Your task to perform on an android device: Open the stopwatch Image 0: 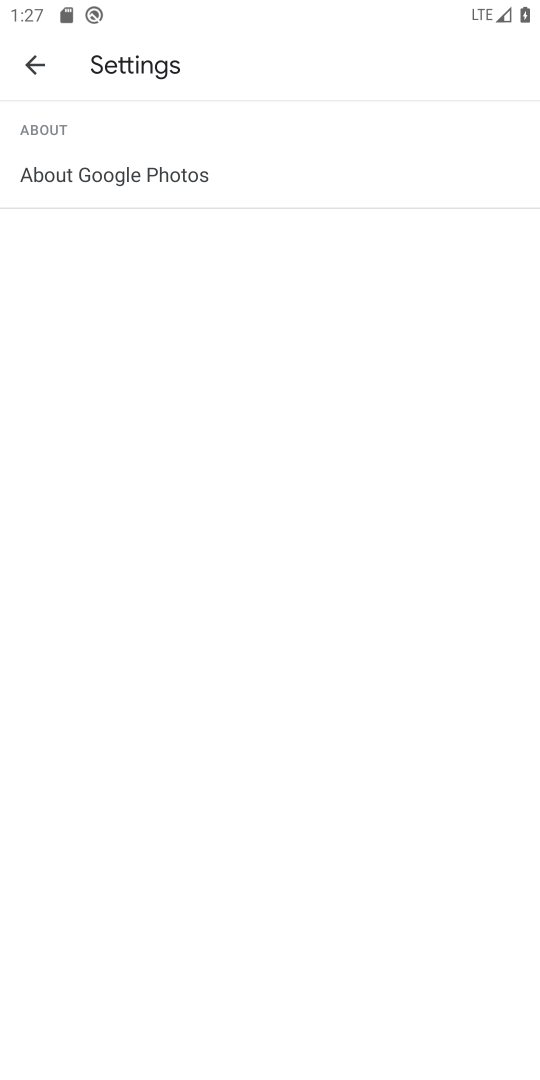
Step 0: press home button
Your task to perform on an android device: Open the stopwatch Image 1: 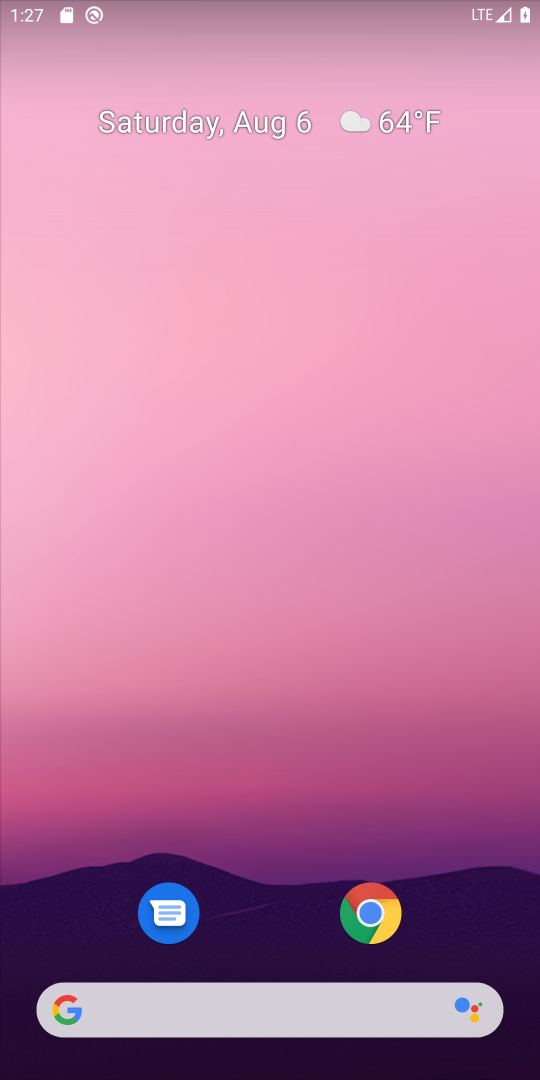
Step 1: drag from (458, 895) to (483, 366)
Your task to perform on an android device: Open the stopwatch Image 2: 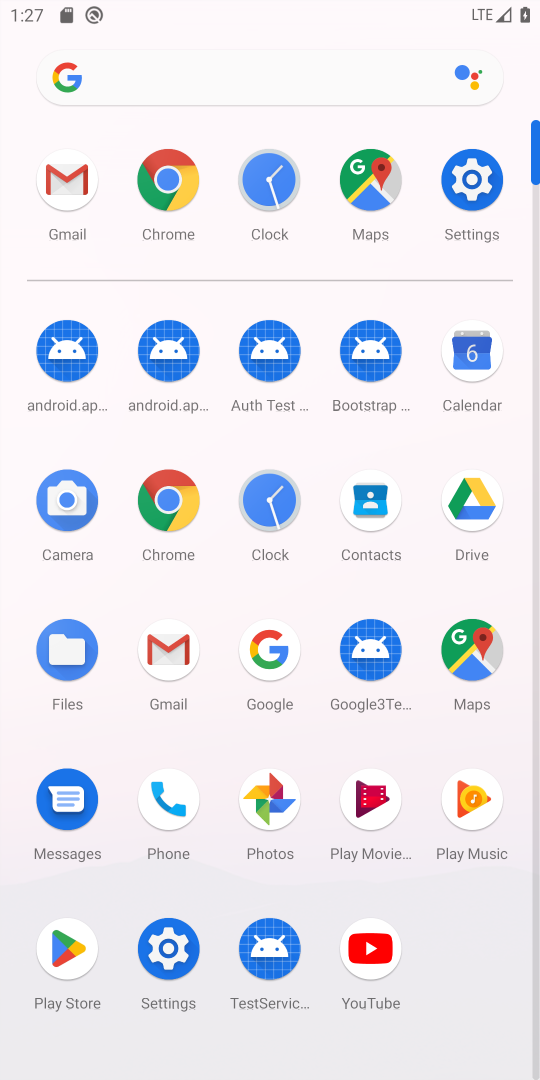
Step 2: click (260, 507)
Your task to perform on an android device: Open the stopwatch Image 3: 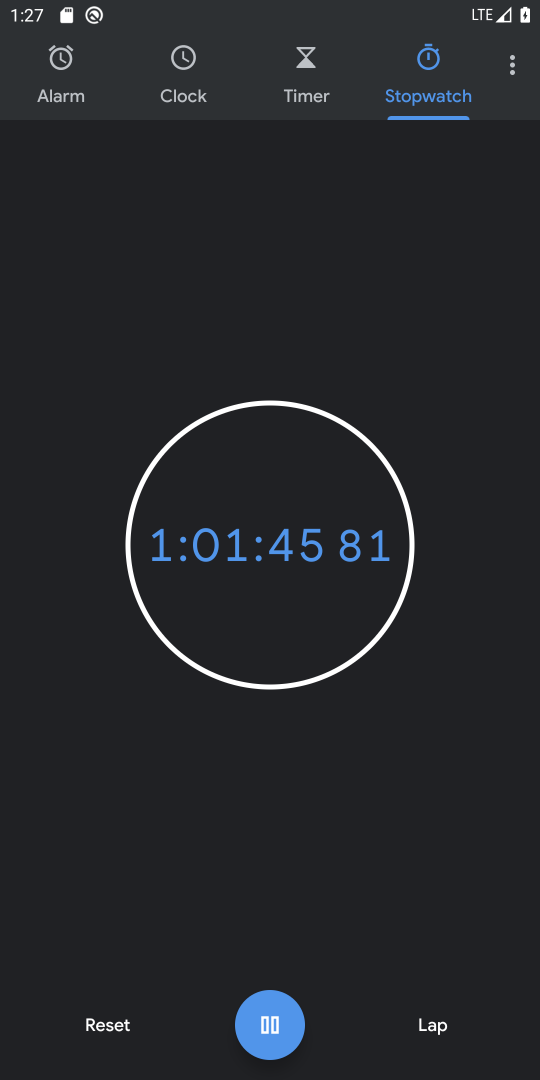
Step 3: task complete